Your task to perform on an android device: turn off notifications in google photos Image 0: 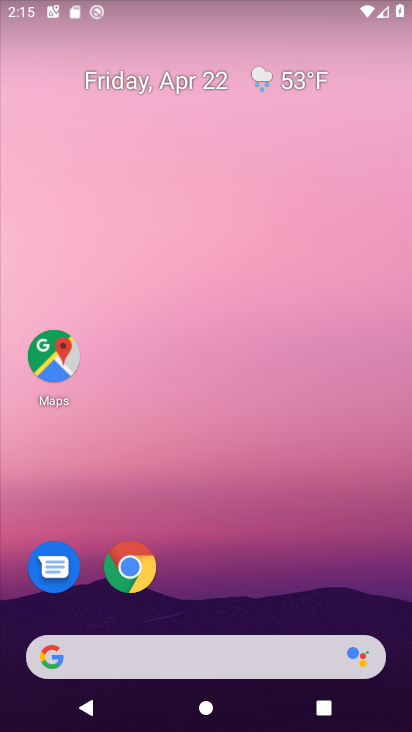
Step 0: drag from (264, 562) to (284, 80)
Your task to perform on an android device: turn off notifications in google photos Image 1: 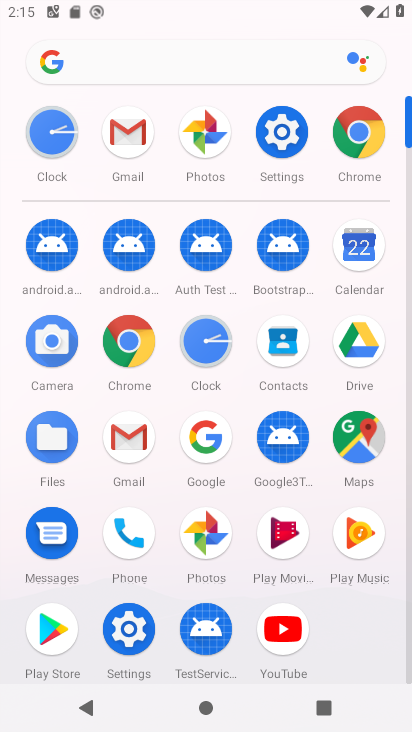
Step 1: click (282, 129)
Your task to perform on an android device: turn off notifications in google photos Image 2: 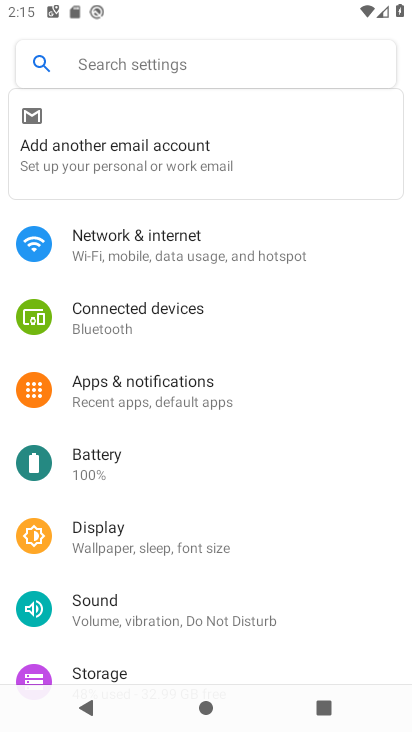
Step 2: click (197, 373)
Your task to perform on an android device: turn off notifications in google photos Image 3: 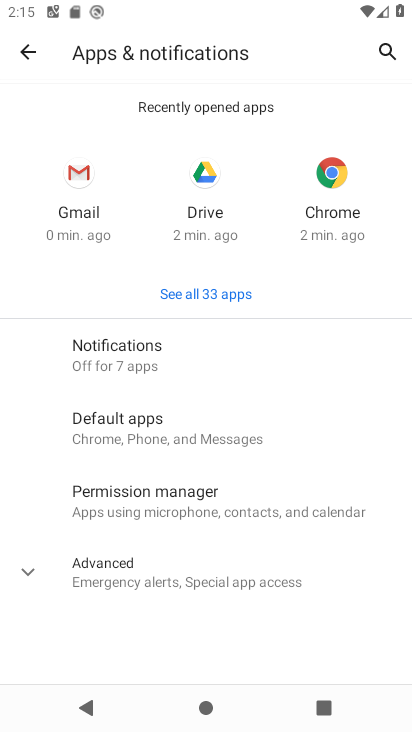
Step 3: click (233, 289)
Your task to perform on an android device: turn off notifications in google photos Image 4: 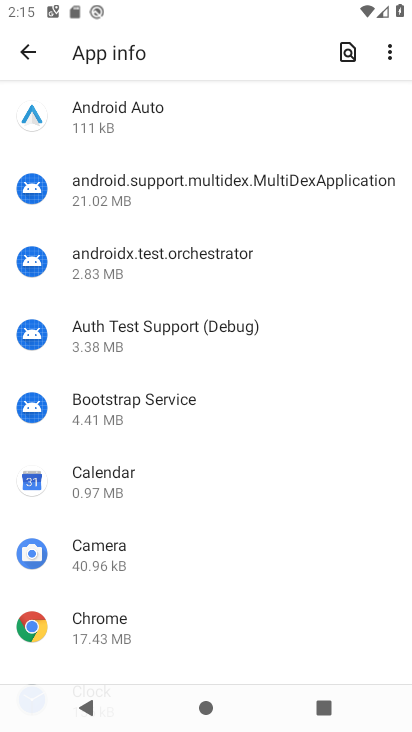
Step 4: drag from (208, 642) to (223, 59)
Your task to perform on an android device: turn off notifications in google photos Image 5: 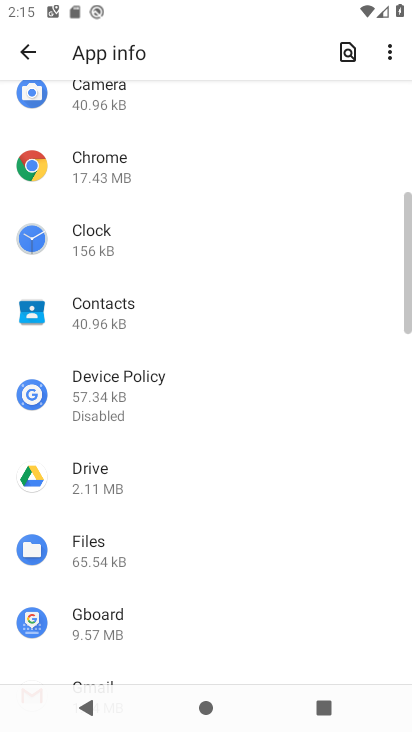
Step 5: drag from (182, 614) to (244, 81)
Your task to perform on an android device: turn off notifications in google photos Image 6: 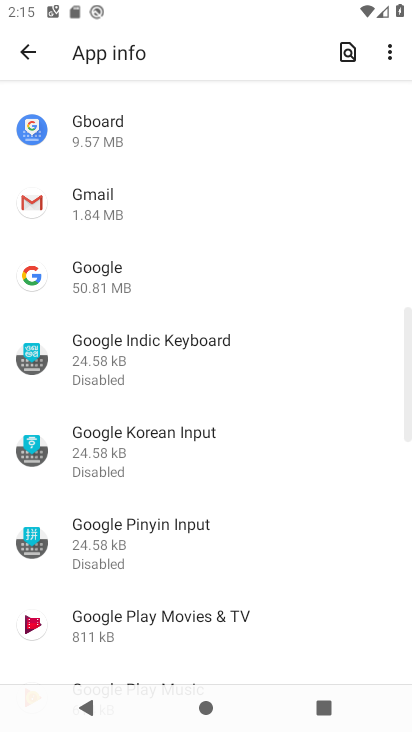
Step 6: drag from (137, 574) to (165, 0)
Your task to perform on an android device: turn off notifications in google photos Image 7: 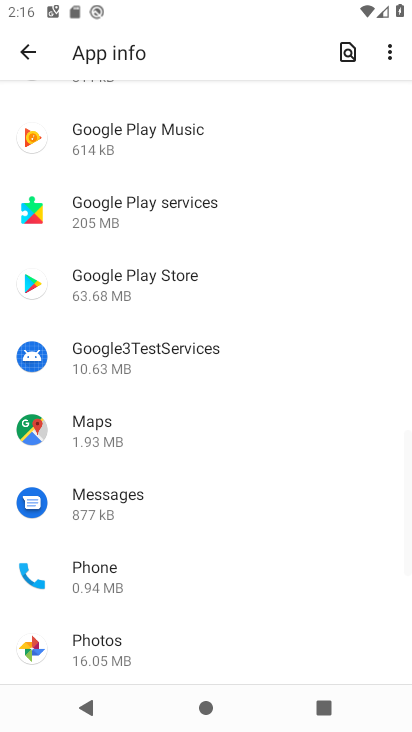
Step 7: click (119, 642)
Your task to perform on an android device: turn off notifications in google photos Image 8: 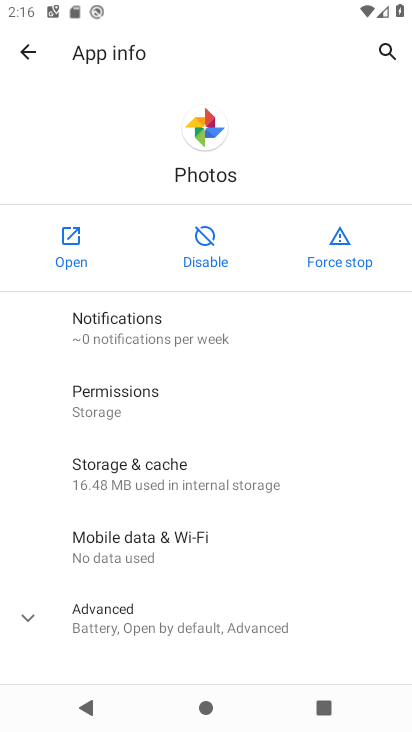
Step 8: click (200, 327)
Your task to perform on an android device: turn off notifications in google photos Image 9: 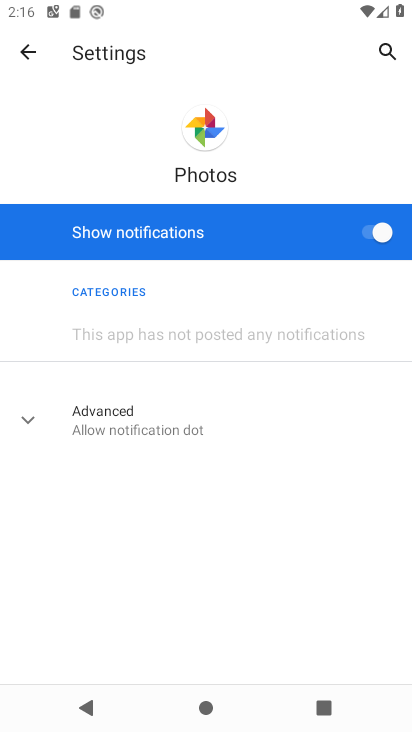
Step 9: click (363, 227)
Your task to perform on an android device: turn off notifications in google photos Image 10: 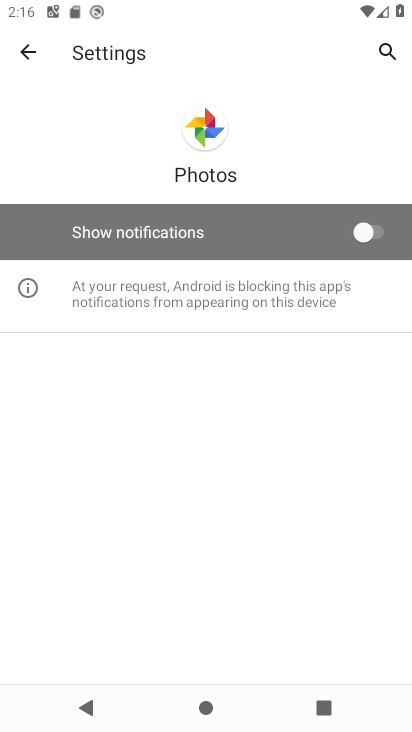
Step 10: task complete